Your task to perform on an android device: show emergency info Image 0: 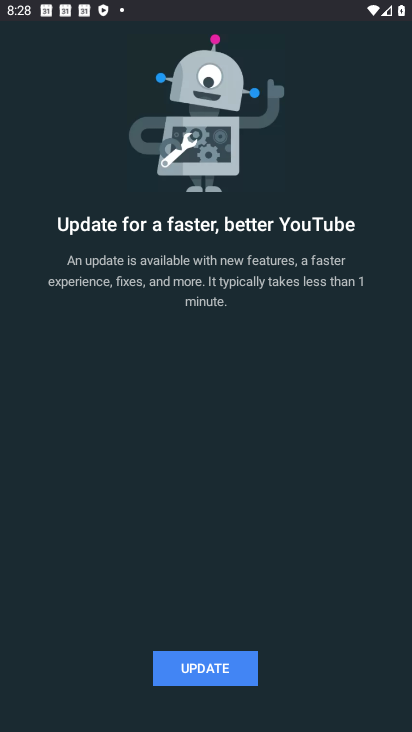
Step 0: press home button
Your task to perform on an android device: show emergency info Image 1: 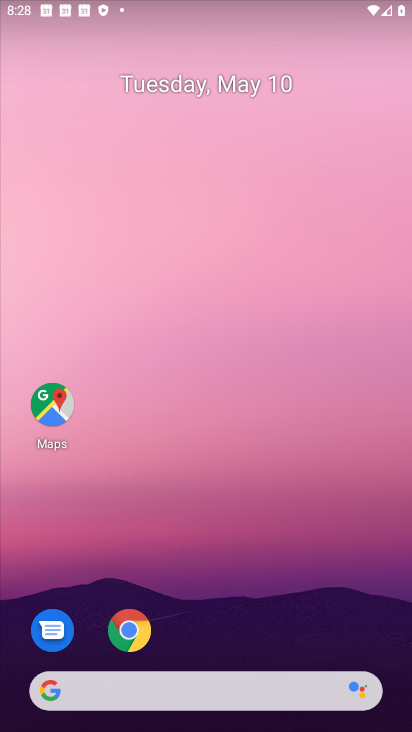
Step 1: drag from (211, 729) to (234, 23)
Your task to perform on an android device: show emergency info Image 2: 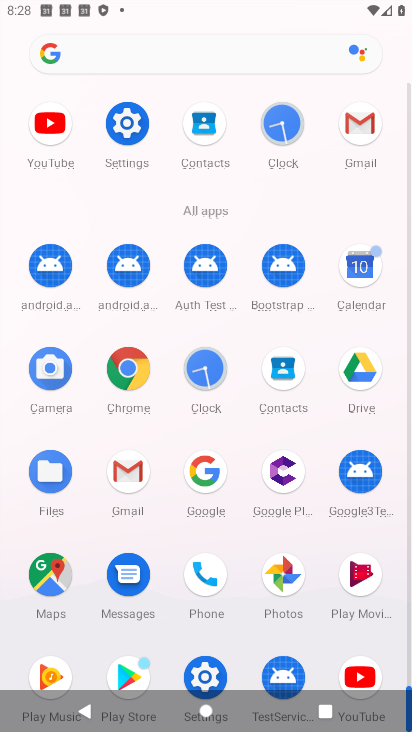
Step 2: click (122, 123)
Your task to perform on an android device: show emergency info Image 3: 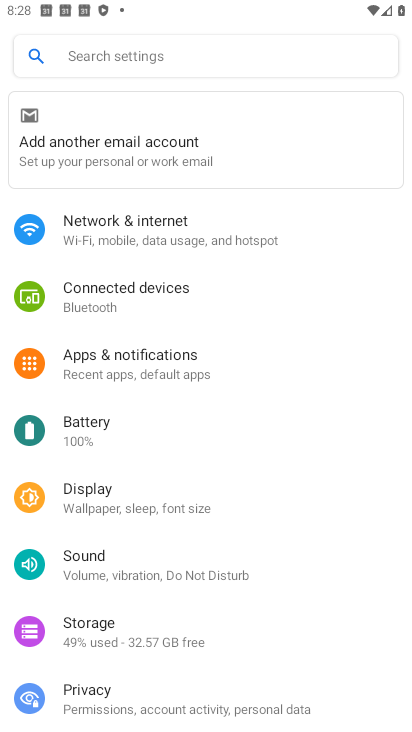
Step 3: drag from (236, 692) to (223, 169)
Your task to perform on an android device: show emergency info Image 4: 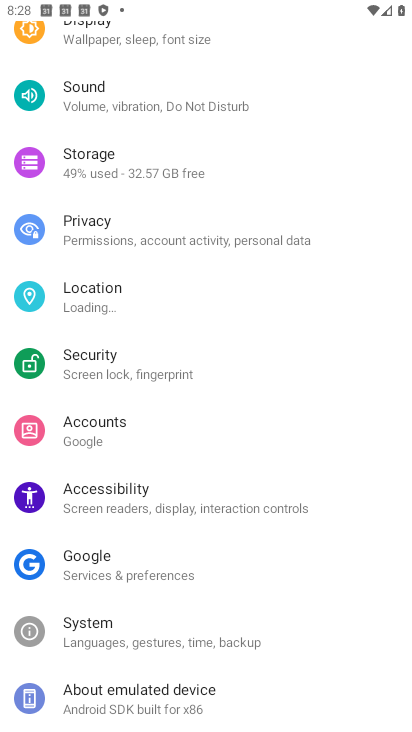
Step 4: click (144, 690)
Your task to perform on an android device: show emergency info Image 5: 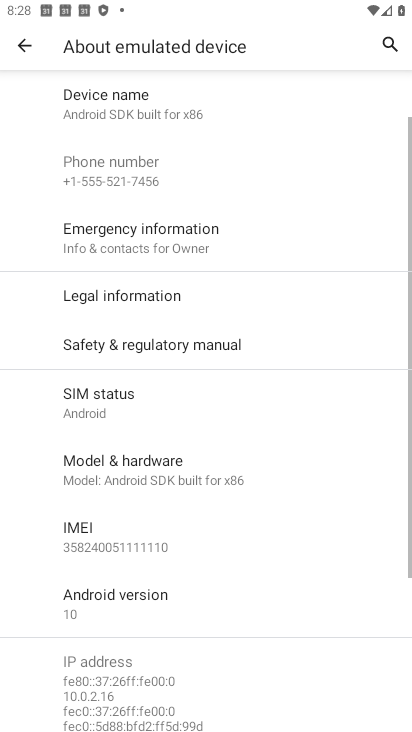
Step 5: click (131, 237)
Your task to perform on an android device: show emergency info Image 6: 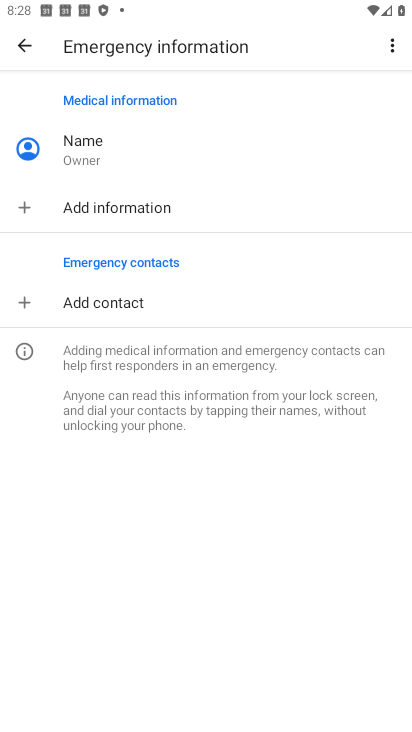
Step 6: task complete